Your task to perform on an android device: search for starred emails in the gmail app Image 0: 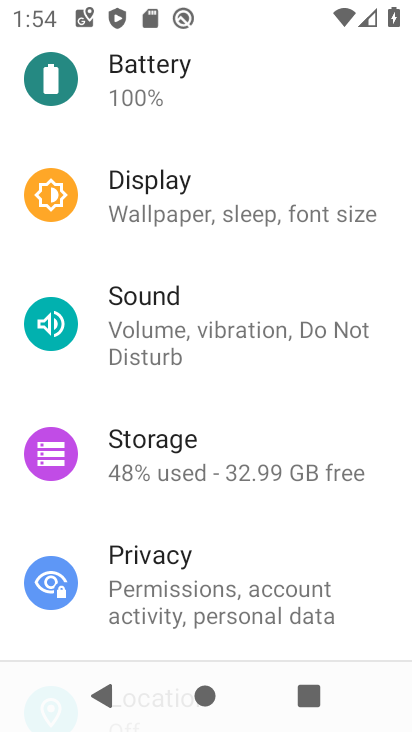
Step 0: press home button
Your task to perform on an android device: search for starred emails in the gmail app Image 1: 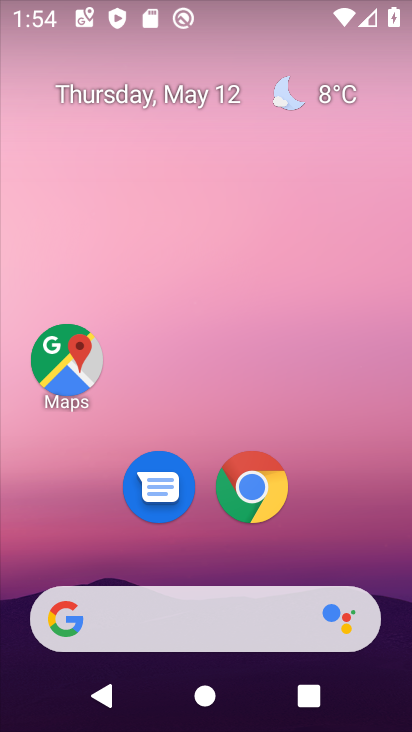
Step 1: drag from (278, 561) to (252, 52)
Your task to perform on an android device: search for starred emails in the gmail app Image 2: 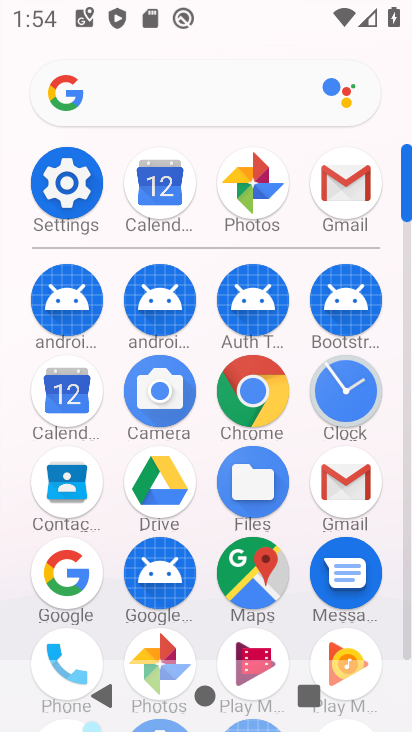
Step 2: click (338, 474)
Your task to perform on an android device: search for starred emails in the gmail app Image 3: 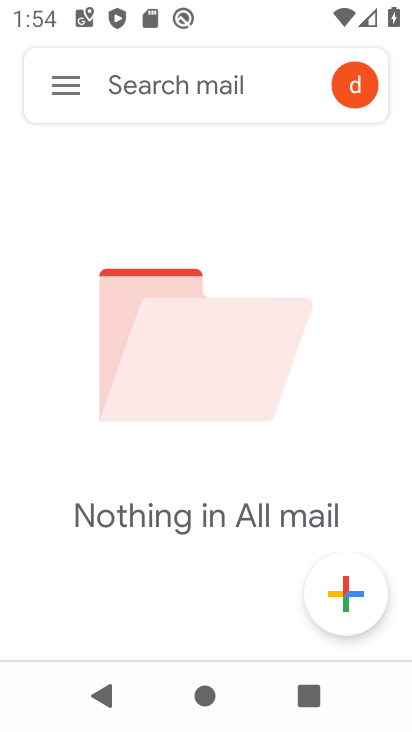
Step 3: click (61, 85)
Your task to perform on an android device: search for starred emails in the gmail app Image 4: 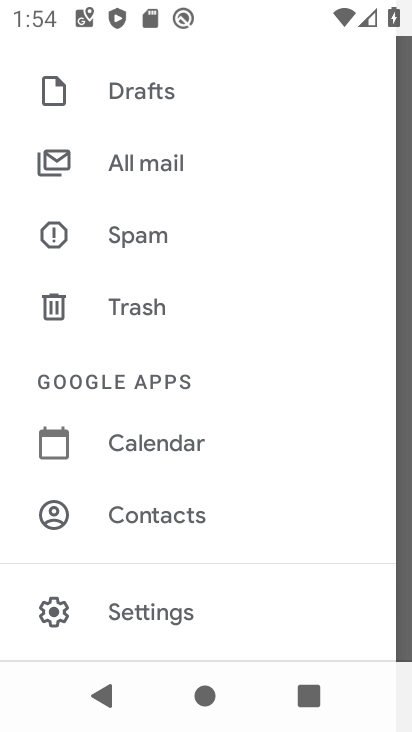
Step 4: drag from (162, 192) to (294, 580)
Your task to perform on an android device: search for starred emails in the gmail app Image 5: 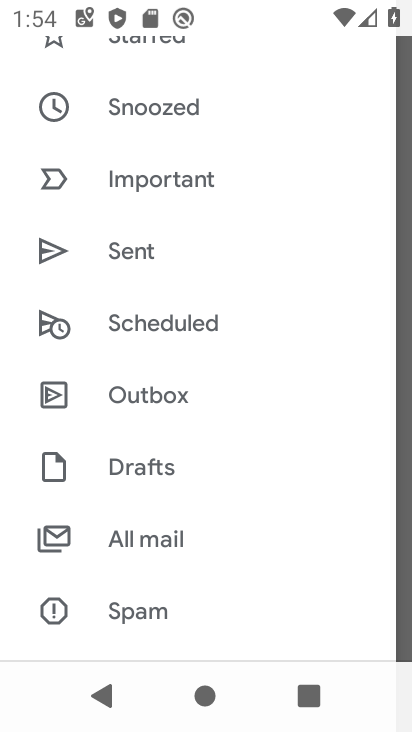
Step 5: drag from (175, 128) to (227, 451)
Your task to perform on an android device: search for starred emails in the gmail app Image 6: 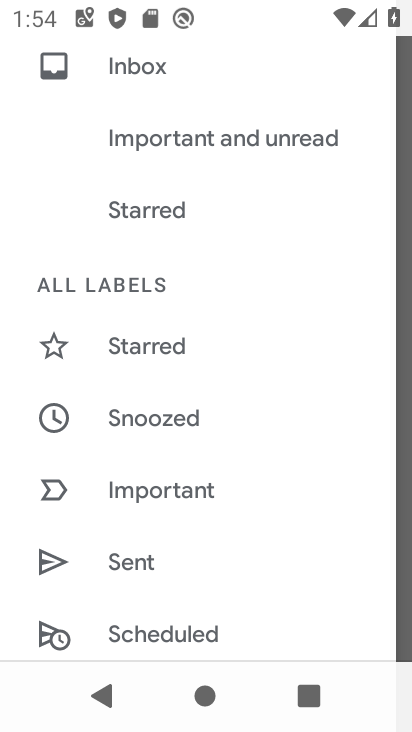
Step 6: click (125, 206)
Your task to perform on an android device: search for starred emails in the gmail app Image 7: 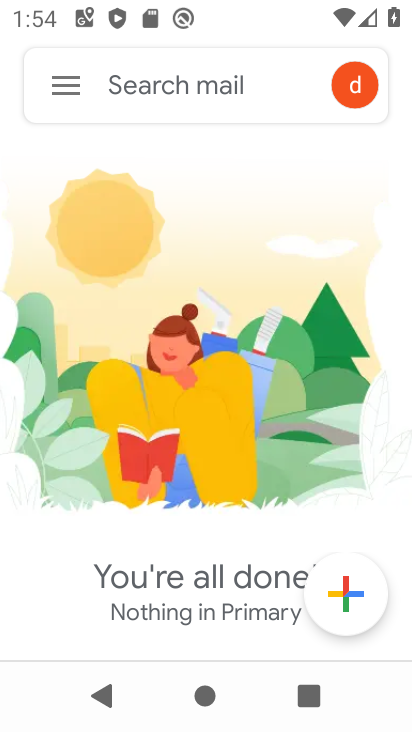
Step 7: task complete